Your task to perform on an android device: turn off location history Image 0: 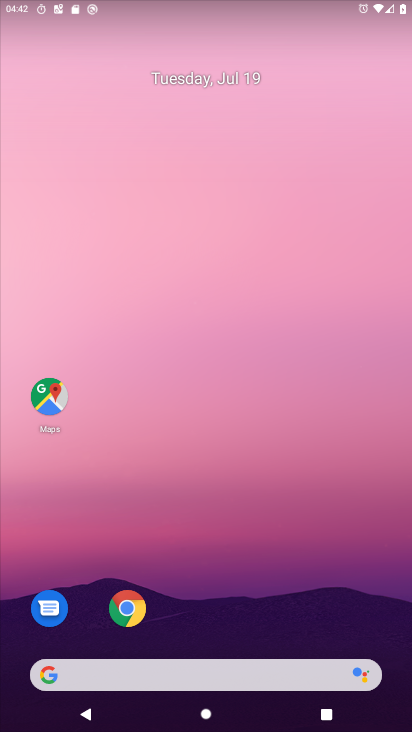
Step 0: drag from (201, 677) to (303, 3)
Your task to perform on an android device: turn off location history Image 1: 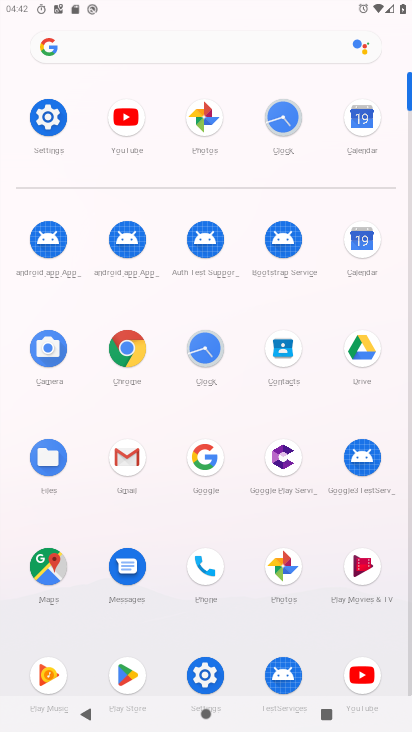
Step 1: click (48, 118)
Your task to perform on an android device: turn off location history Image 2: 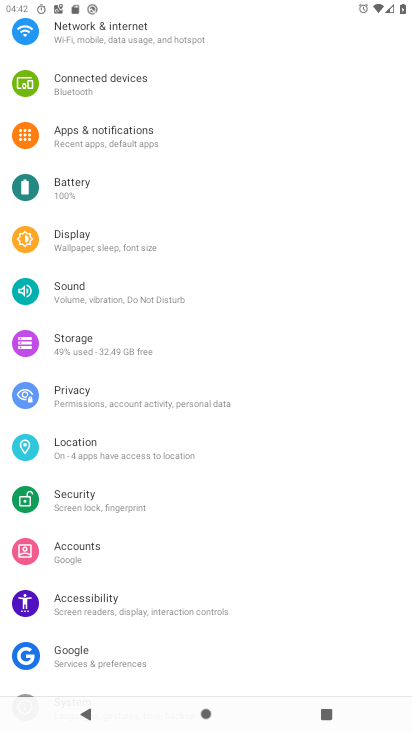
Step 2: click (81, 452)
Your task to perform on an android device: turn off location history Image 3: 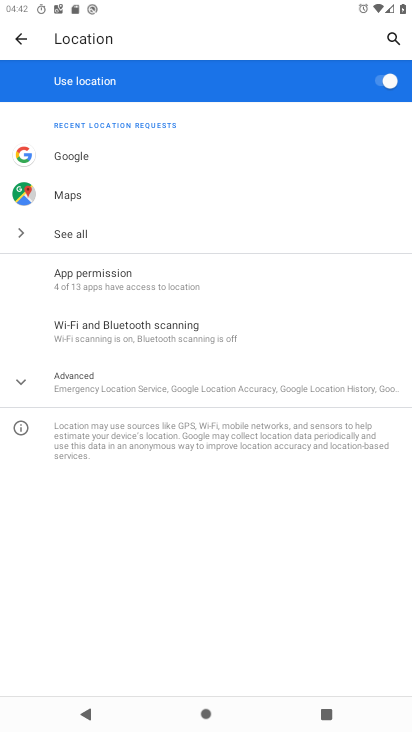
Step 3: click (96, 387)
Your task to perform on an android device: turn off location history Image 4: 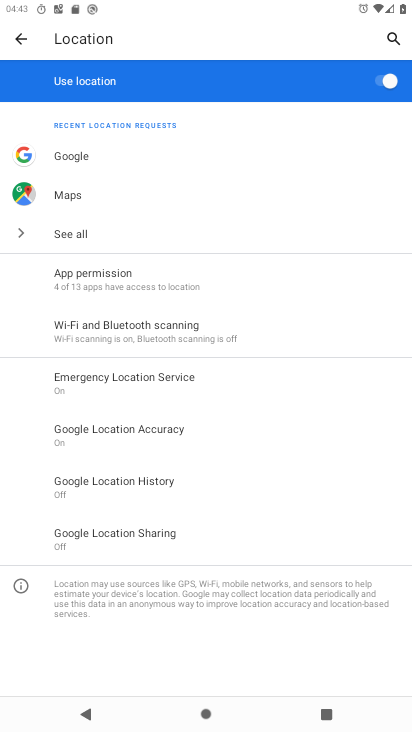
Step 4: task complete